Your task to perform on an android device: create a new album in the google photos Image 0: 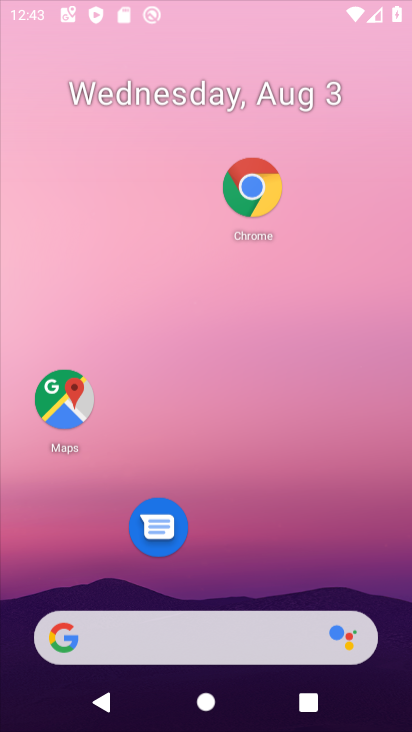
Step 0: press home button
Your task to perform on an android device: create a new album in the google photos Image 1: 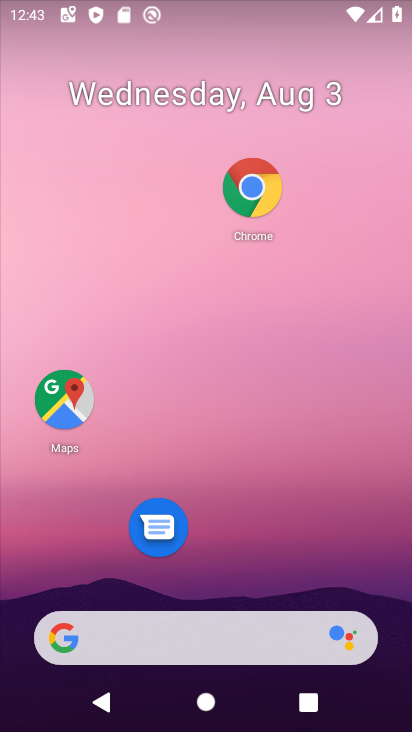
Step 1: drag from (237, 594) to (227, 49)
Your task to perform on an android device: create a new album in the google photos Image 2: 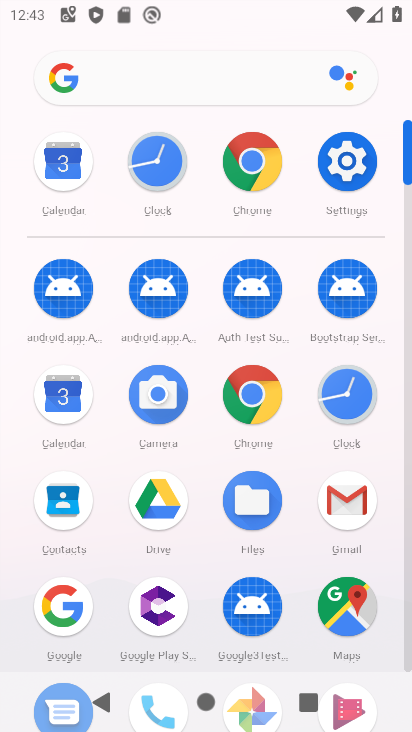
Step 2: drag from (319, 627) to (317, 314)
Your task to perform on an android device: create a new album in the google photos Image 3: 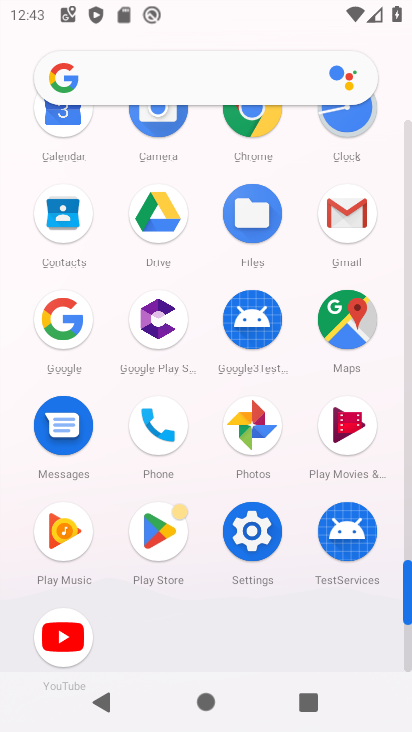
Step 3: click (250, 437)
Your task to perform on an android device: create a new album in the google photos Image 4: 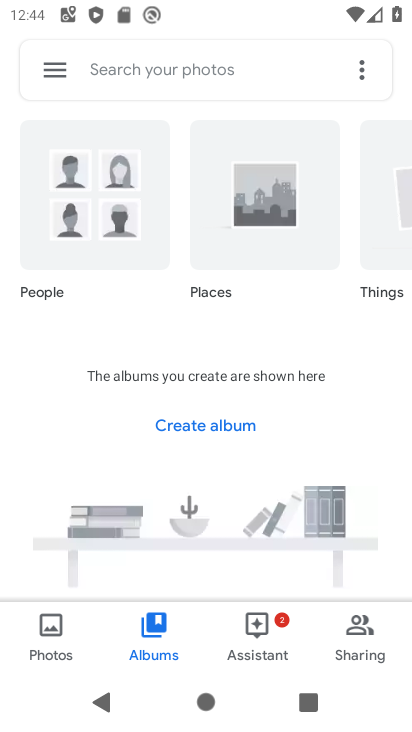
Step 4: click (228, 429)
Your task to perform on an android device: create a new album in the google photos Image 5: 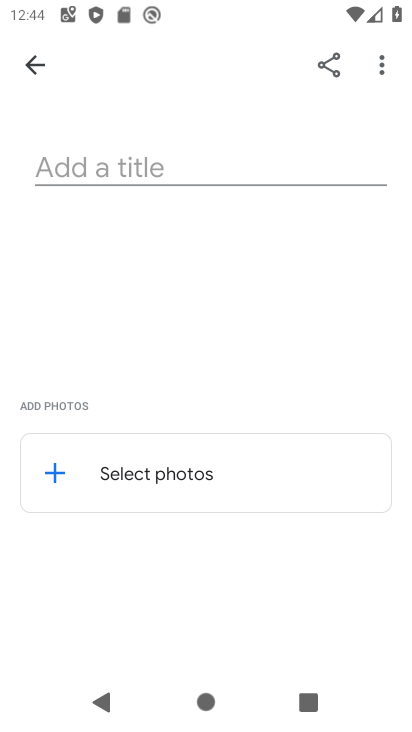
Step 5: click (59, 491)
Your task to perform on an android device: create a new album in the google photos Image 6: 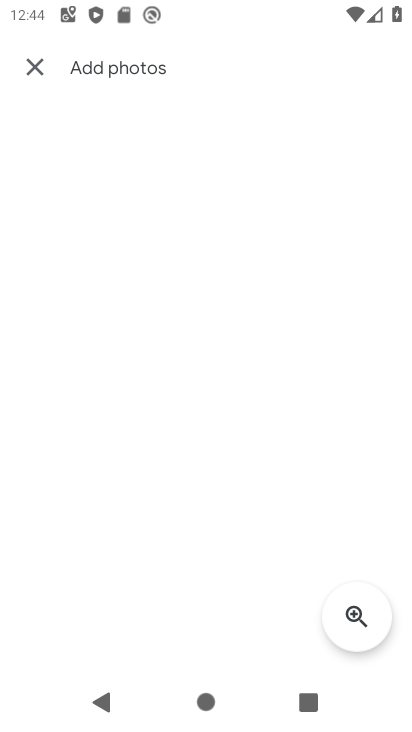
Step 6: task complete